Your task to perform on an android device: Open maps Image 0: 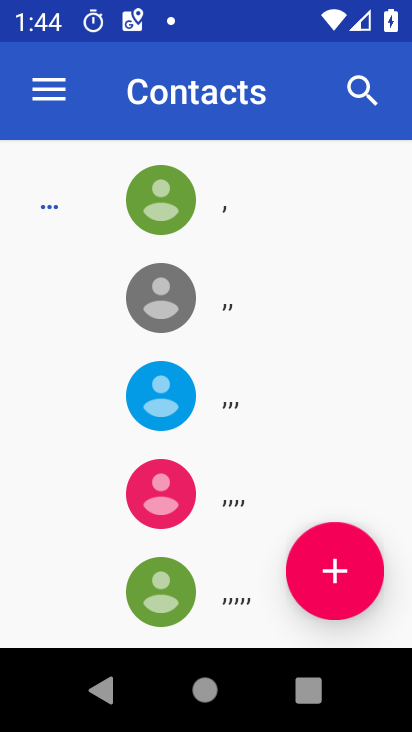
Step 0: press home button
Your task to perform on an android device: Open maps Image 1: 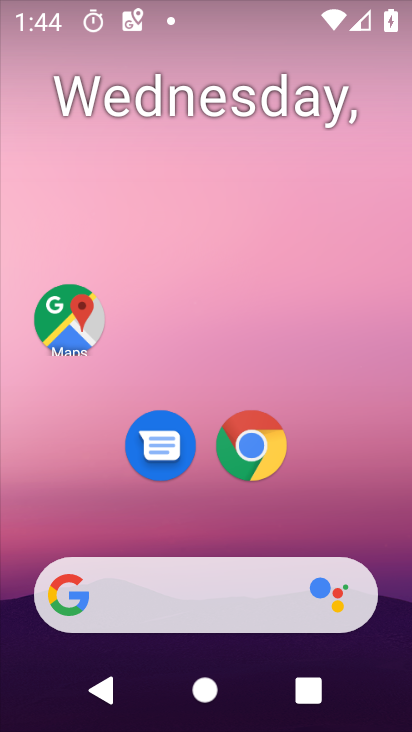
Step 1: click (94, 340)
Your task to perform on an android device: Open maps Image 2: 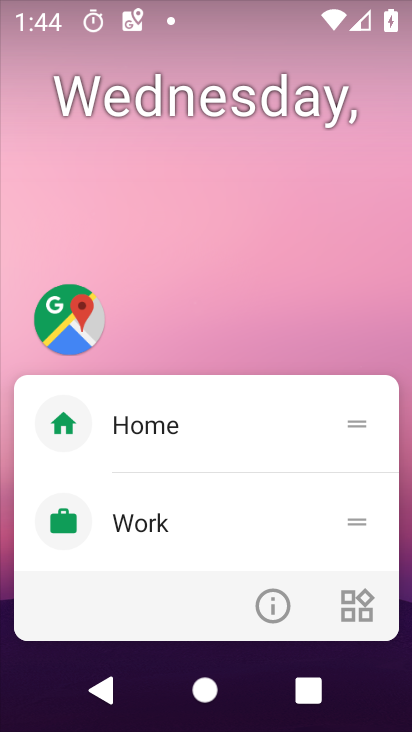
Step 2: click (67, 314)
Your task to perform on an android device: Open maps Image 3: 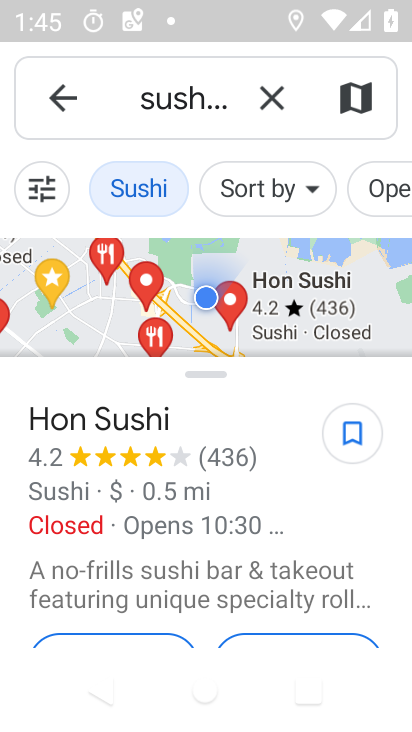
Step 3: task complete